Your task to perform on an android device: Search for "acer predator" on amazon, select the first entry, add it to the cart, then select checkout. Image 0: 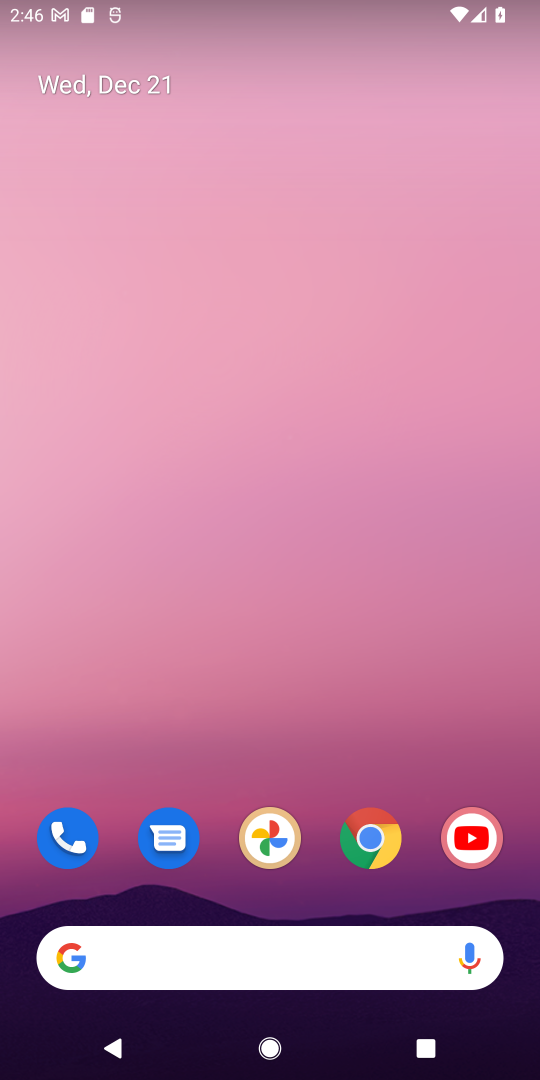
Step 0: click (358, 840)
Your task to perform on an android device: Search for "acer predator" on amazon, select the first entry, add it to the cart, then select checkout. Image 1: 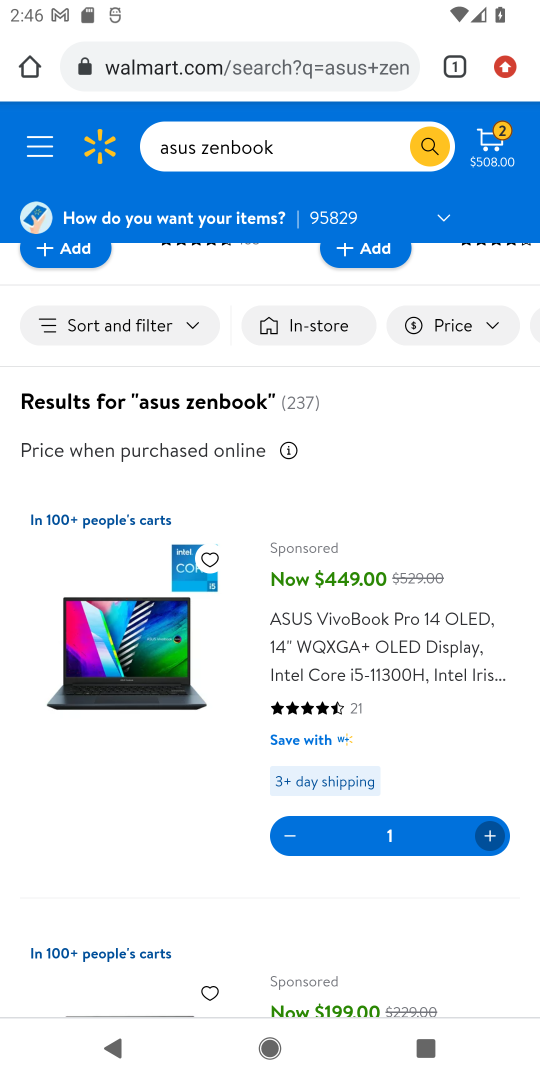
Step 1: click (254, 78)
Your task to perform on an android device: Search for "acer predator" on amazon, select the first entry, add it to the cart, then select checkout. Image 2: 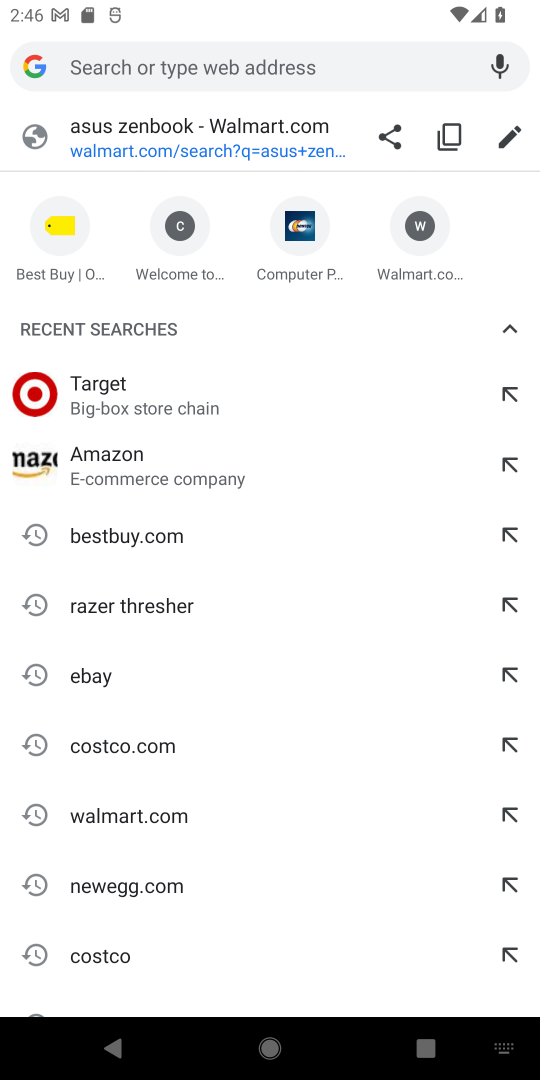
Step 2: type "amazon"
Your task to perform on an android device: Search for "acer predator" on amazon, select the first entry, add it to the cart, then select checkout. Image 3: 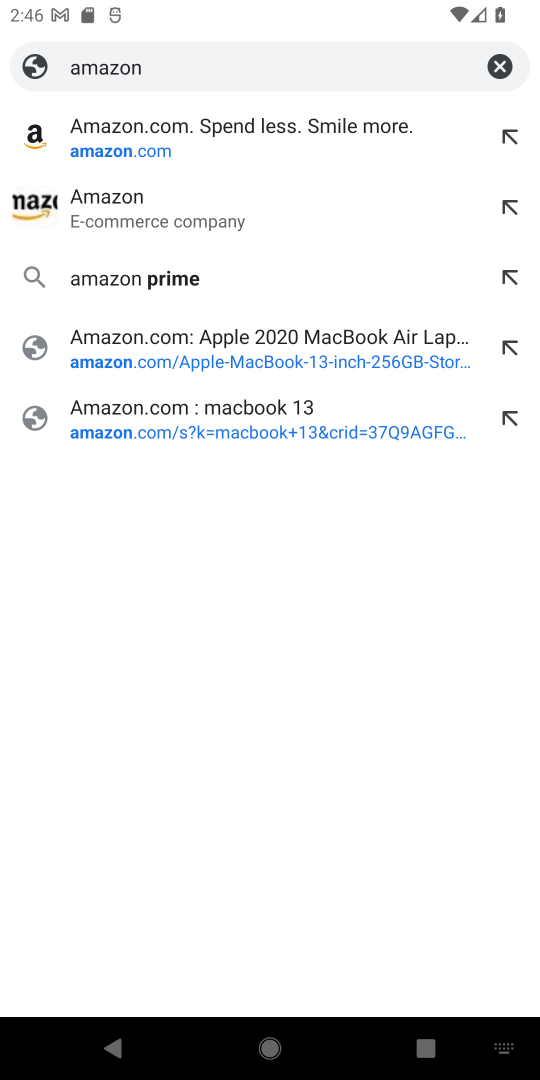
Step 3: click (208, 153)
Your task to perform on an android device: Search for "acer predator" on amazon, select the first entry, add it to the cart, then select checkout. Image 4: 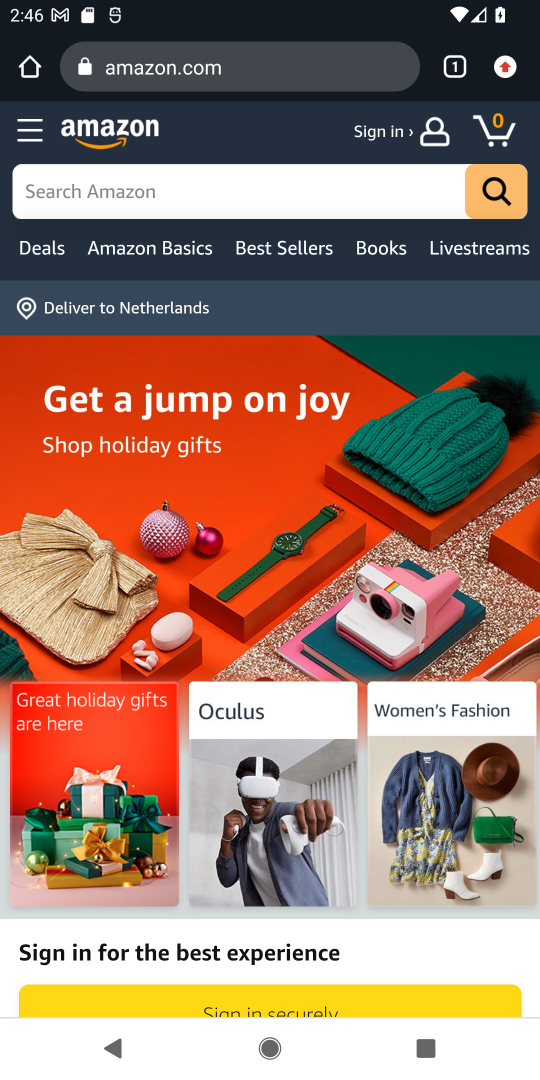
Step 4: click (189, 193)
Your task to perform on an android device: Search for "acer predator" on amazon, select the first entry, add it to the cart, then select checkout. Image 5: 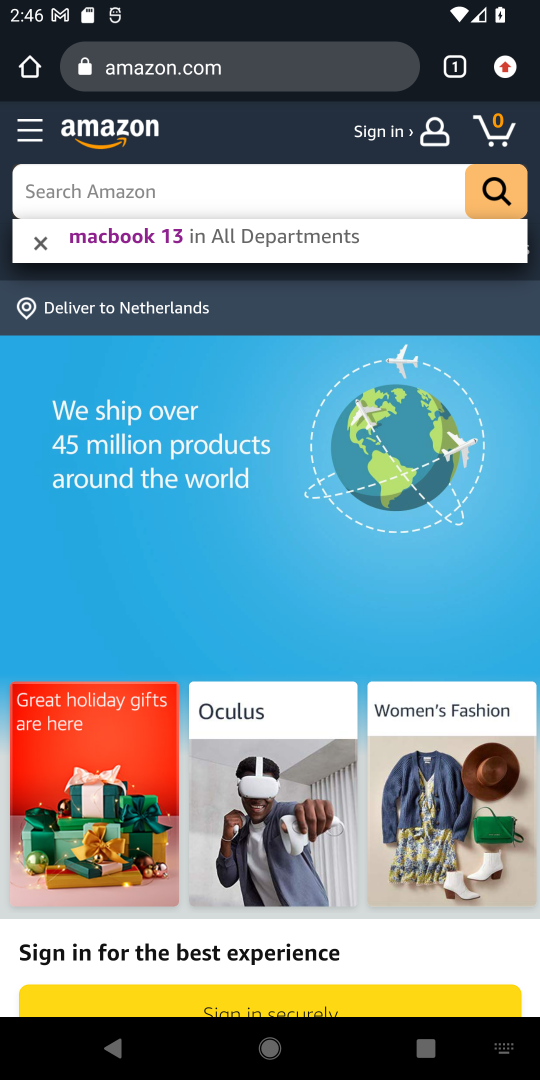
Step 5: type "acer predator"
Your task to perform on an android device: Search for "acer predator" on amazon, select the first entry, add it to the cart, then select checkout. Image 6: 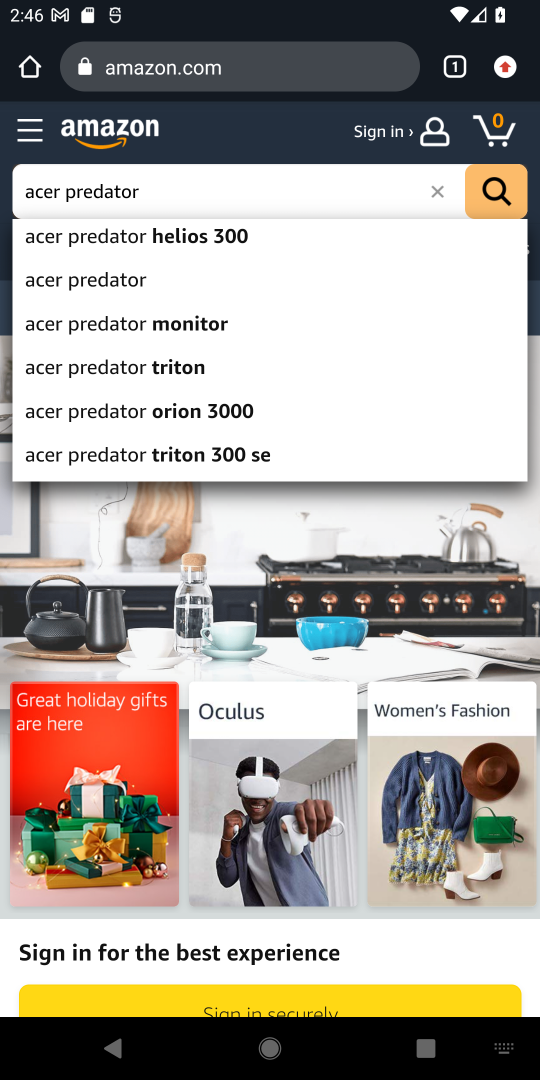
Step 6: click (499, 194)
Your task to perform on an android device: Search for "acer predator" on amazon, select the first entry, add it to the cart, then select checkout. Image 7: 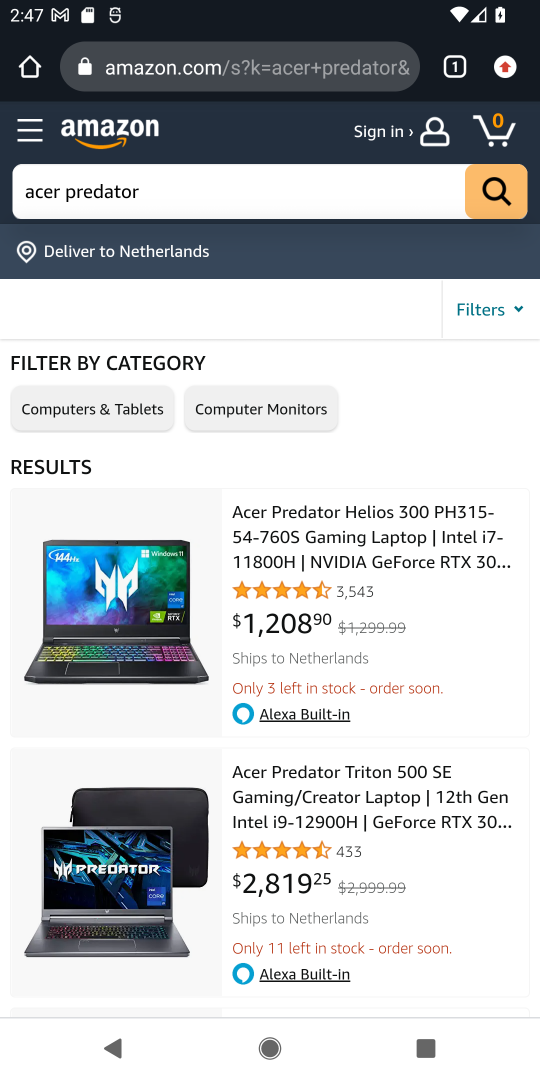
Step 7: click (272, 523)
Your task to perform on an android device: Search for "acer predator" on amazon, select the first entry, add it to the cart, then select checkout. Image 8: 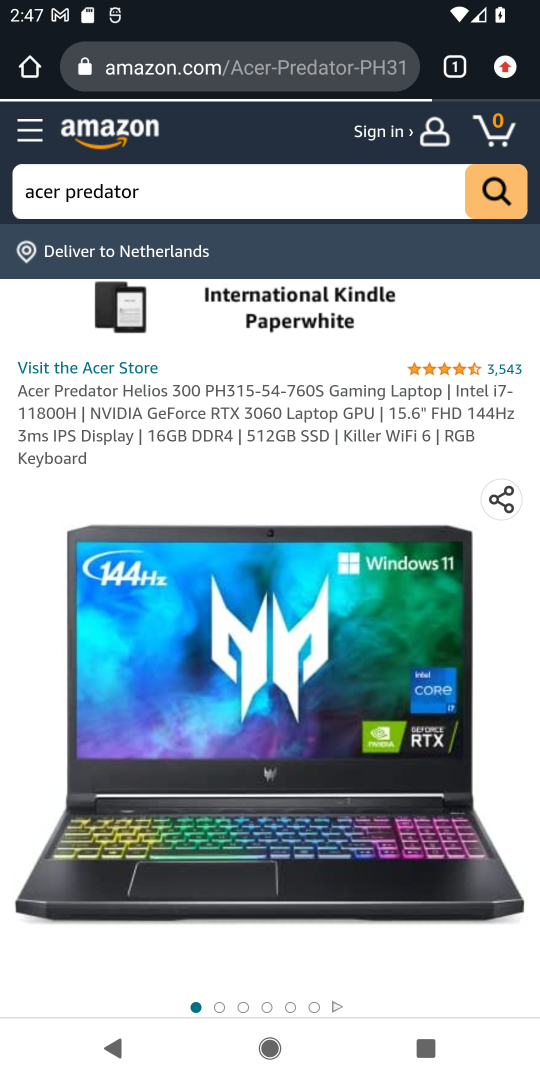
Step 8: drag from (226, 938) to (224, 218)
Your task to perform on an android device: Search for "acer predator" on amazon, select the first entry, add it to the cart, then select checkout. Image 9: 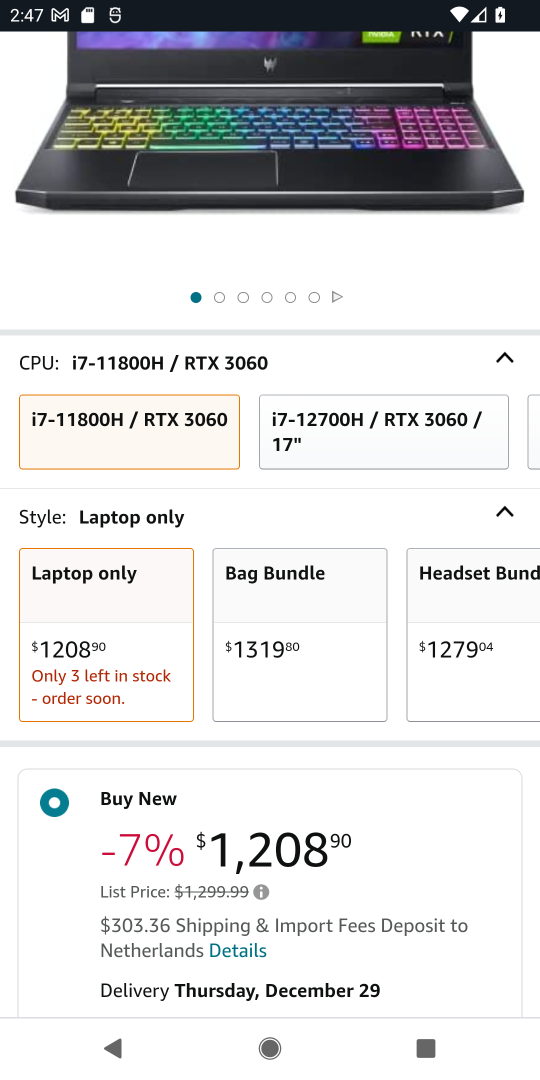
Step 9: drag from (314, 877) to (322, 108)
Your task to perform on an android device: Search for "acer predator" on amazon, select the first entry, add it to the cart, then select checkout. Image 10: 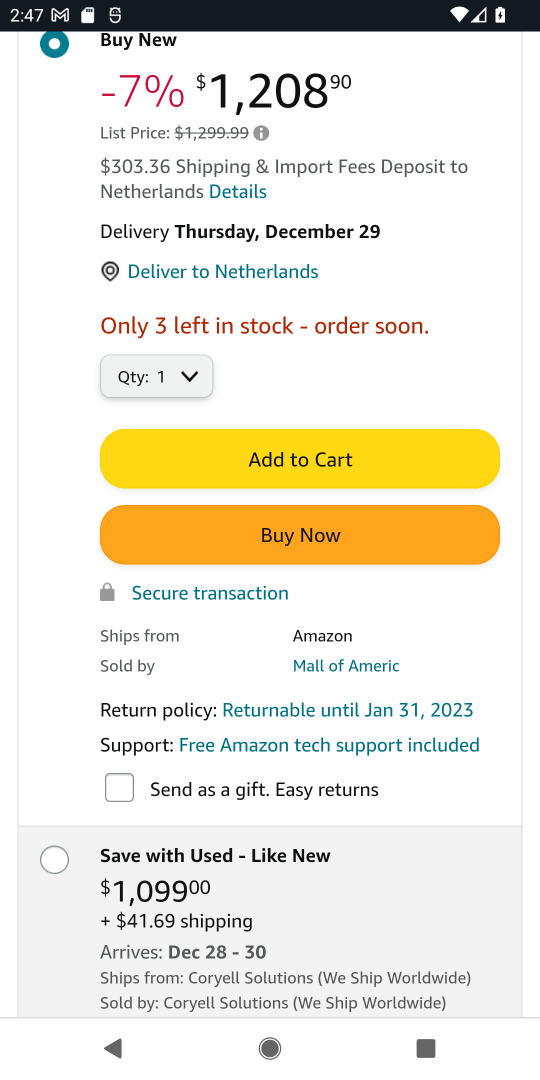
Step 10: click (395, 446)
Your task to perform on an android device: Search for "acer predator" on amazon, select the first entry, add it to the cart, then select checkout. Image 11: 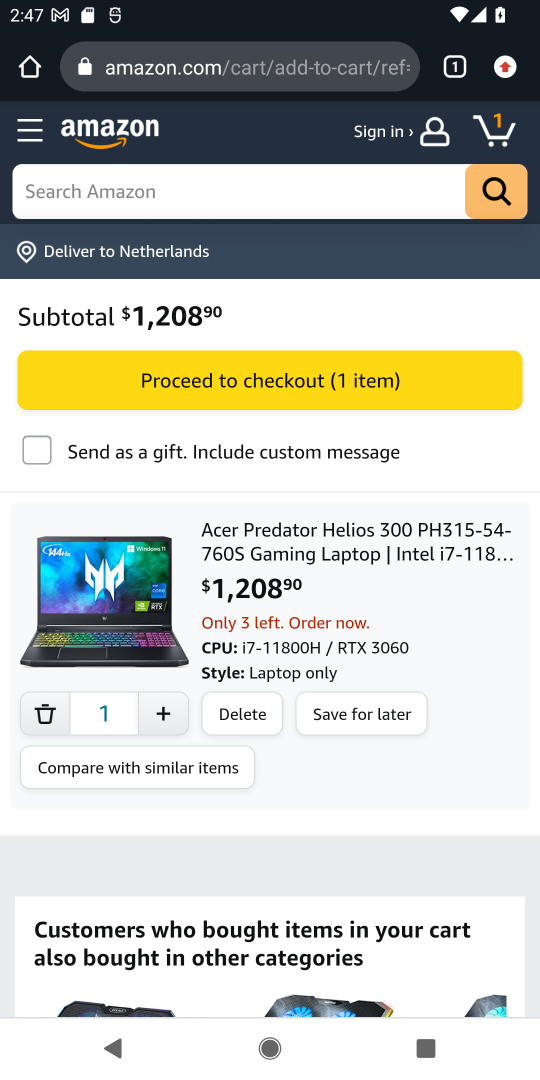
Step 11: task complete